Your task to perform on an android device: Go to settings Image 0: 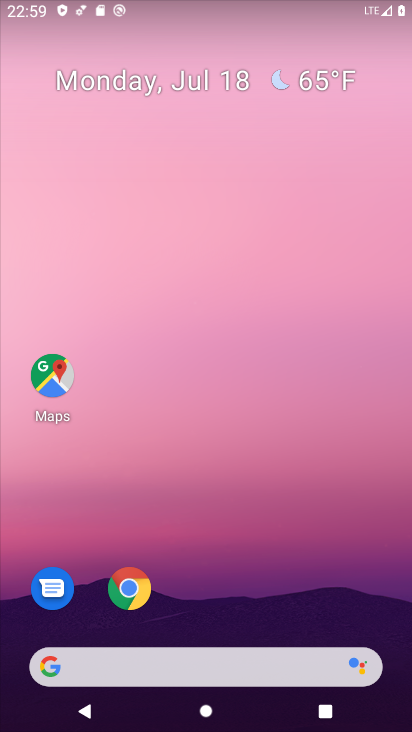
Step 0: press home button
Your task to perform on an android device: Go to settings Image 1: 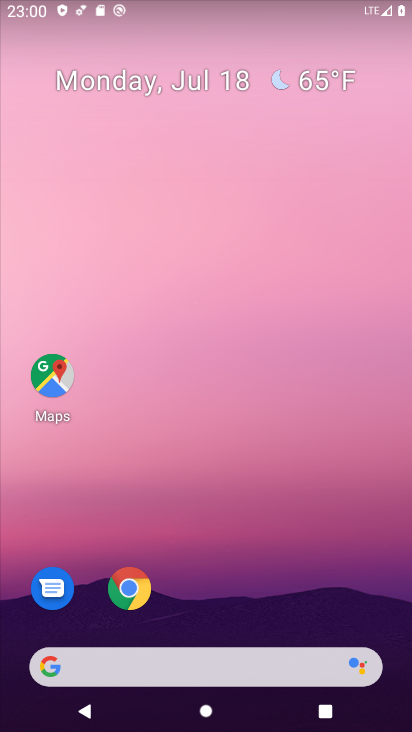
Step 1: drag from (265, 586) to (263, 131)
Your task to perform on an android device: Go to settings Image 2: 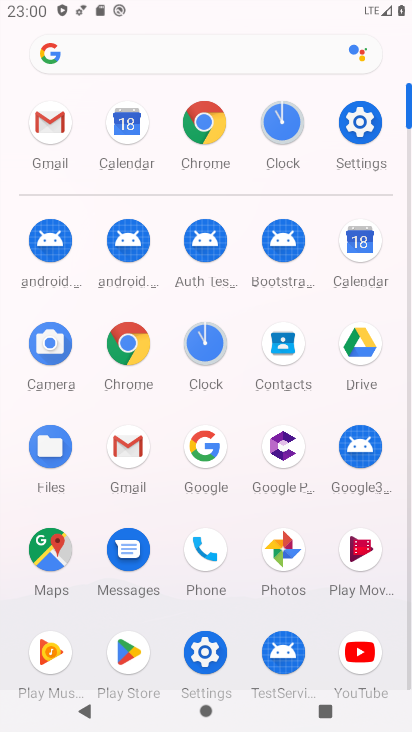
Step 2: click (361, 125)
Your task to perform on an android device: Go to settings Image 3: 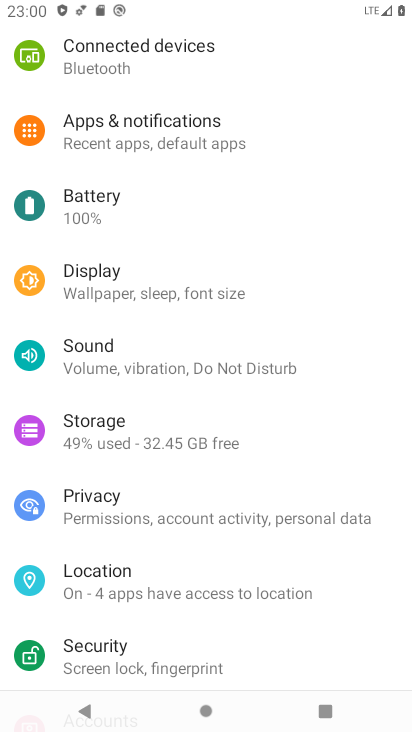
Step 3: task complete